Your task to perform on an android device: Open the calendar app, open the side menu, and click the "Day" option Image 0: 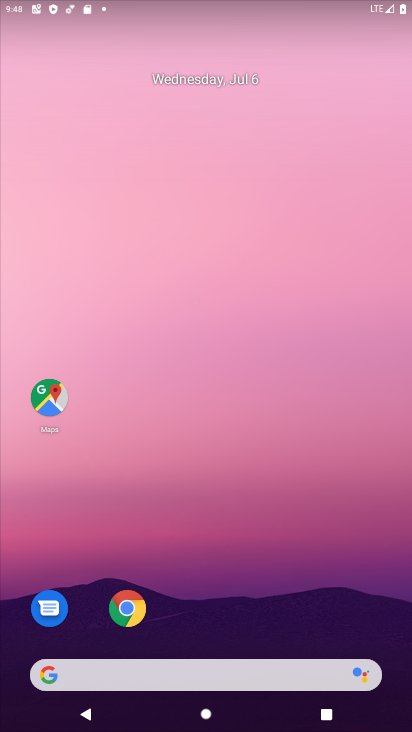
Step 0: drag from (252, 565) to (234, 166)
Your task to perform on an android device: Open the calendar app, open the side menu, and click the "Day" option Image 1: 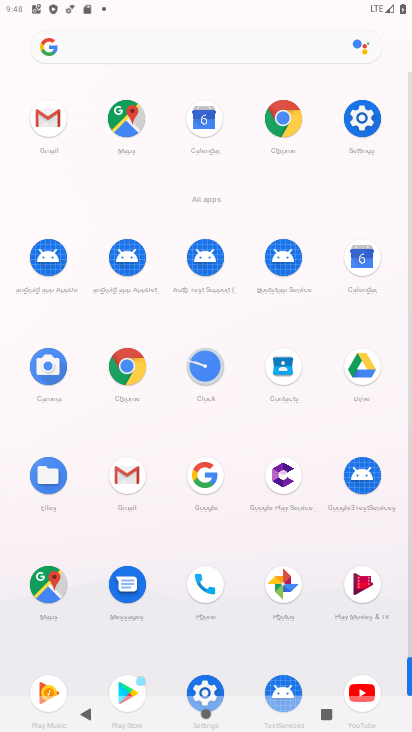
Step 1: click (363, 261)
Your task to perform on an android device: Open the calendar app, open the side menu, and click the "Day" option Image 2: 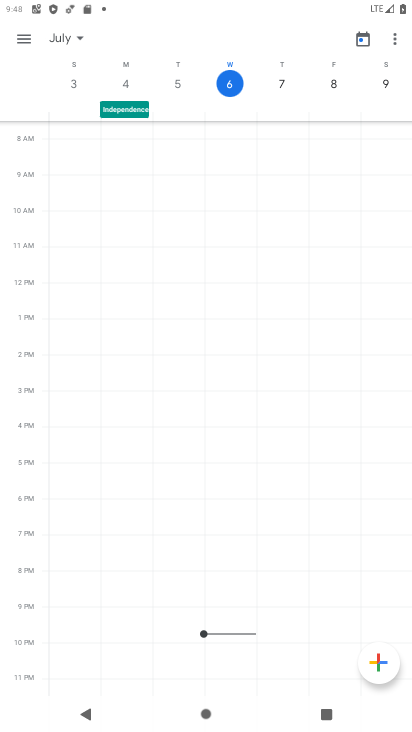
Step 2: click (28, 39)
Your task to perform on an android device: Open the calendar app, open the side menu, and click the "Day" option Image 3: 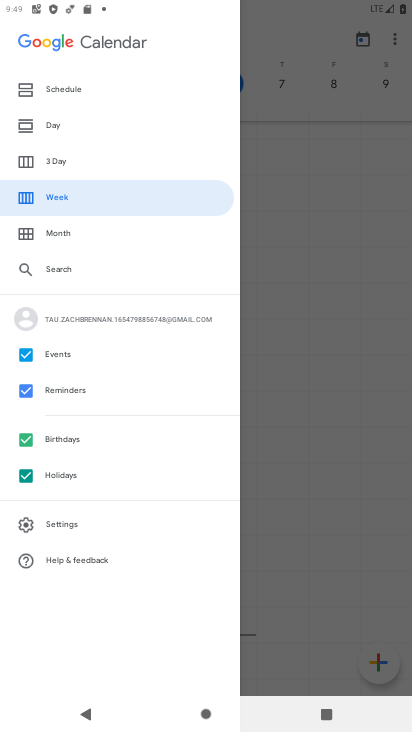
Step 3: click (55, 116)
Your task to perform on an android device: Open the calendar app, open the side menu, and click the "Day" option Image 4: 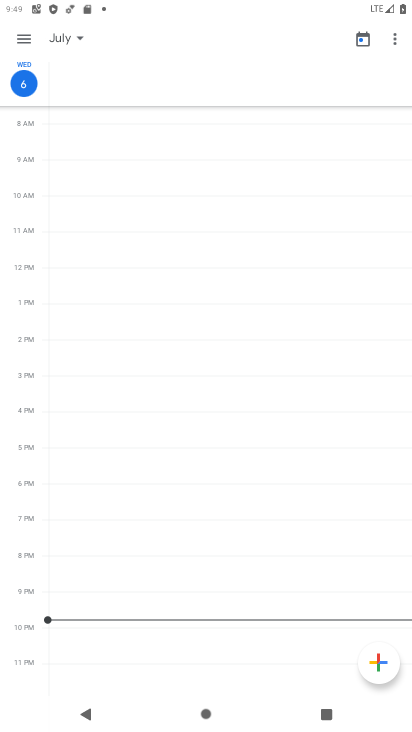
Step 4: task complete